Your task to perform on an android device: Check the news Image 0: 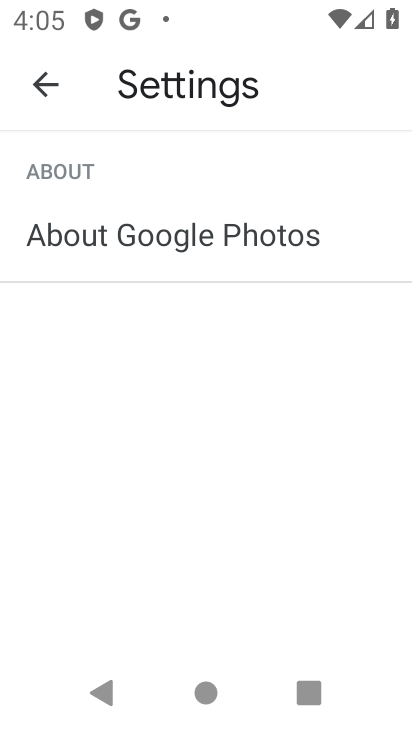
Step 0: press home button
Your task to perform on an android device: Check the news Image 1: 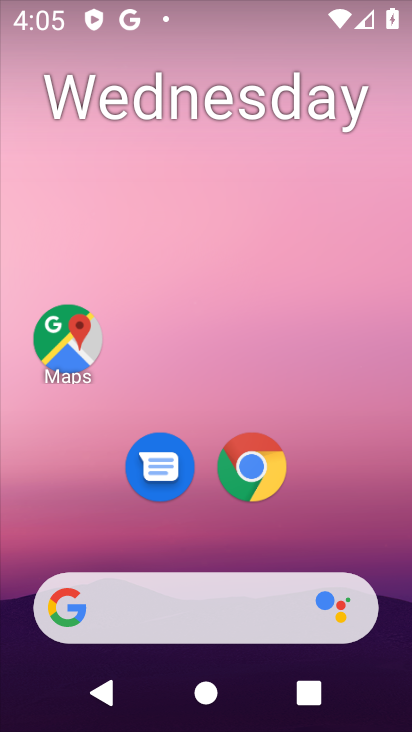
Step 1: click (219, 619)
Your task to perform on an android device: Check the news Image 2: 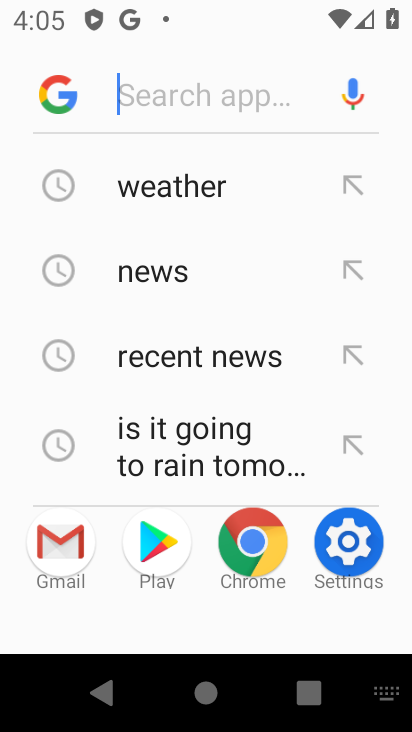
Step 2: click (205, 263)
Your task to perform on an android device: Check the news Image 3: 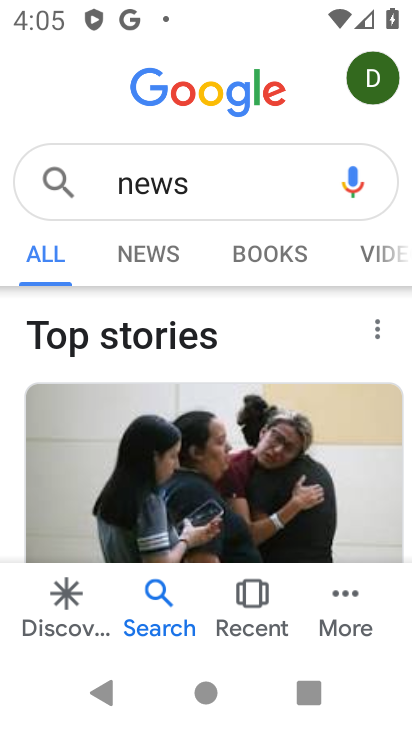
Step 3: task complete